Your task to perform on an android device: clear all cookies in the chrome app Image 0: 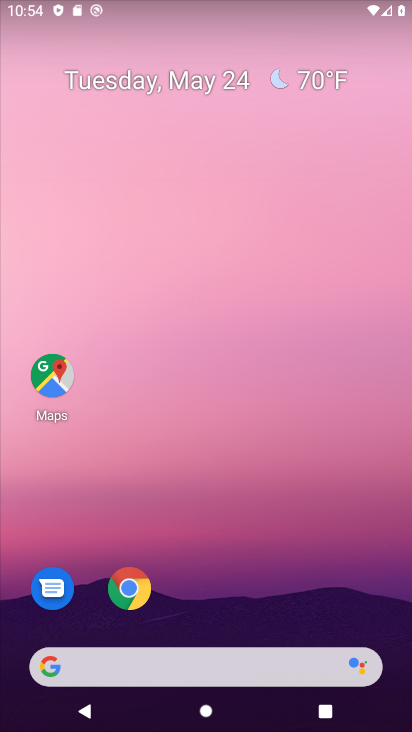
Step 0: click (134, 587)
Your task to perform on an android device: clear all cookies in the chrome app Image 1: 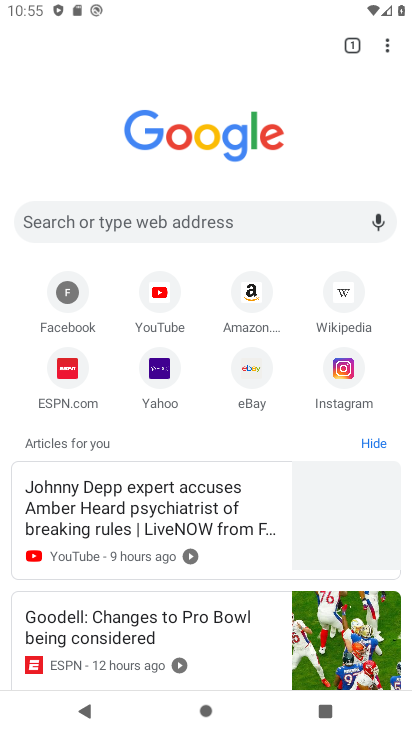
Step 1: click (386, 44)
Your task to perform on an android device: clear all cookies in the chrome app Image 2: 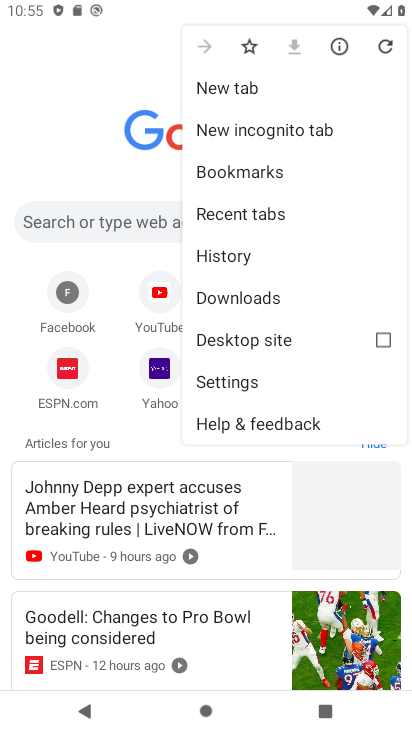
Step 2: click (261, 255)
Your task to perform on an android device: clear all cookies in the chrome app Image 3: 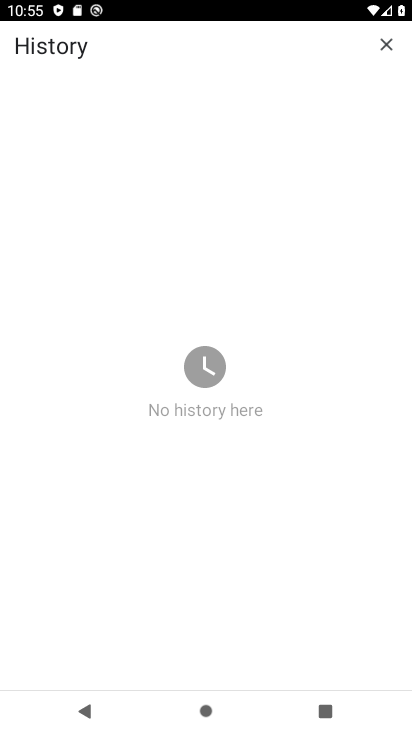
Step 3: task complete